Your task to perform on an android device: turn off location Image 0: 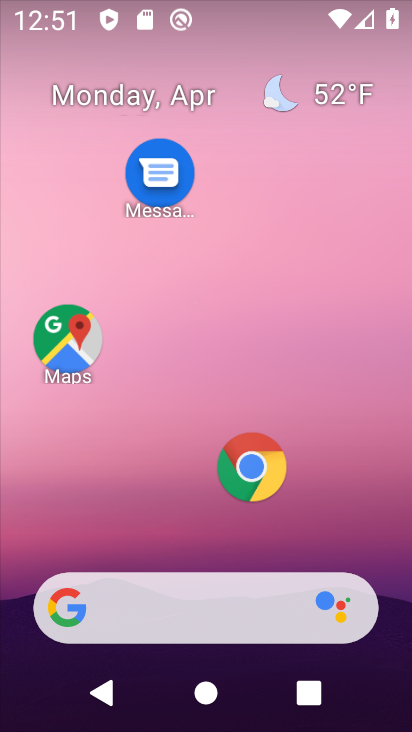
Step 0: drag from (198, 535) to (185, 148)
Your task to perform on an android device: turn off location Image 1: 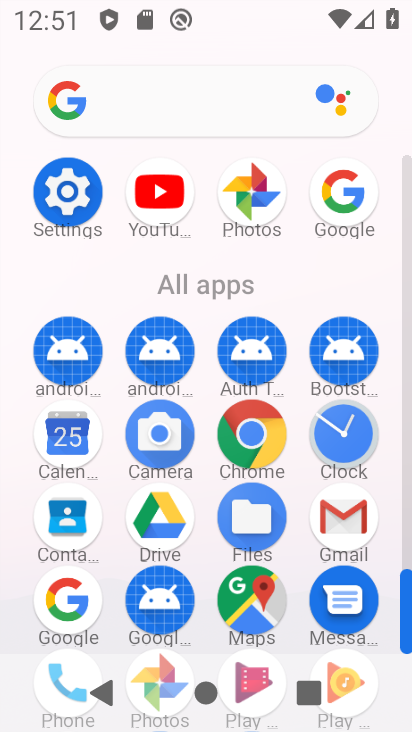
Step 1: click (69, 199)
Your task to perform on an android device: turn off location Image 2: 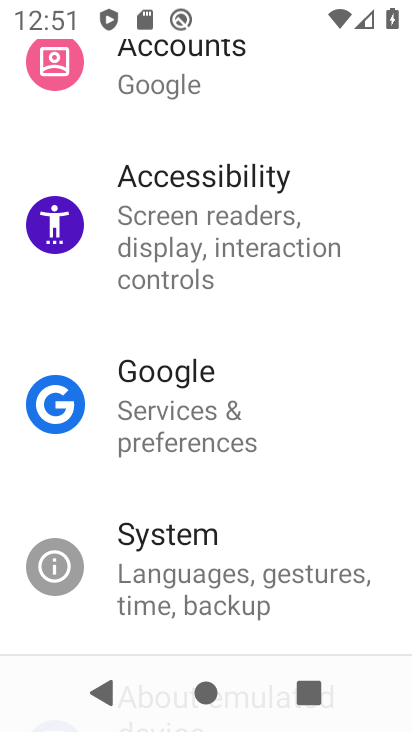
Step 2: click (276, 365)
Your task to perform on an android device: turn off location Image 3: 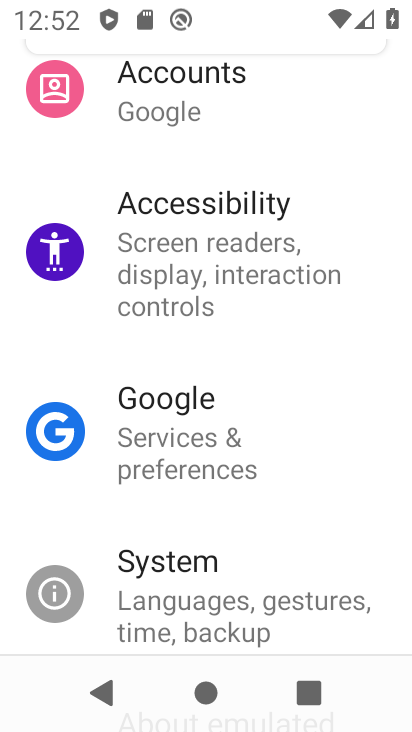
Step 3: drag from (296, 586) to (291, 282)
Your task to perform on an android device: turn off location Image 4: 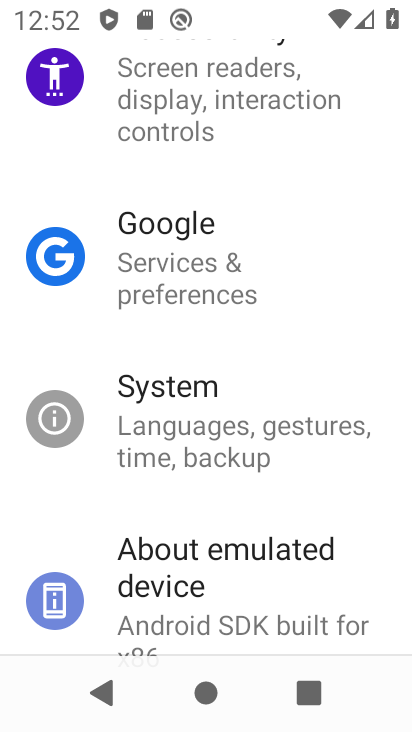
Step 4: drag from (301, 559) to (298, 290)
Your task to perform on an android device: turn off location Image 5: 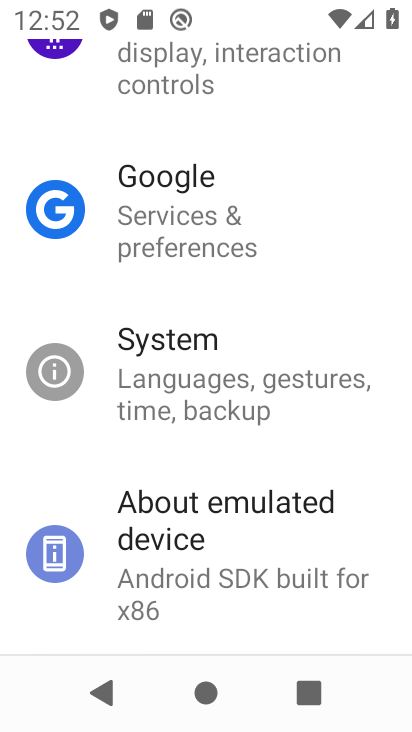
Step 5: drag from (318, 555) to (330, 223)
Your task to perform on an android device: turn off location Image 6: 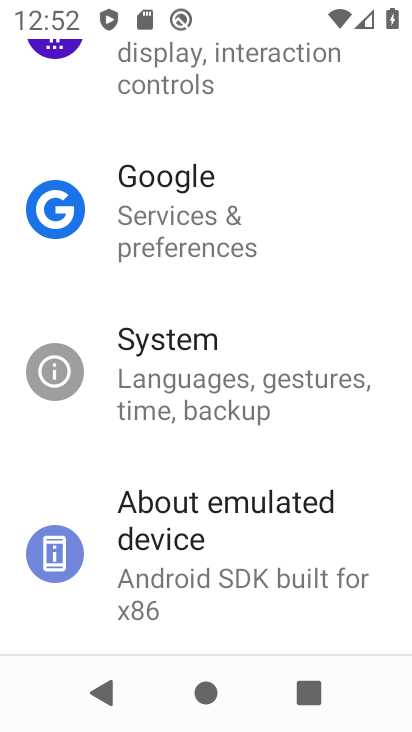
Step 6: drag from (271, 496) to (302, 269)
Your task to perform on an android device: turn off location Image 7: 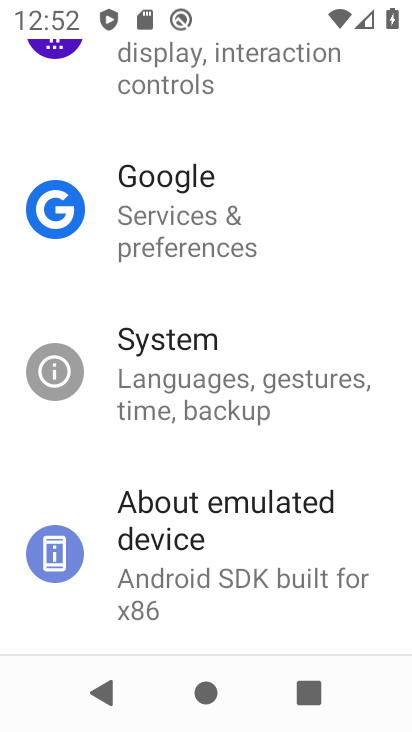
Step 7: drag from (267, 226) to (255, 515)
Your task to perform on an android device: turn off location Image 8: 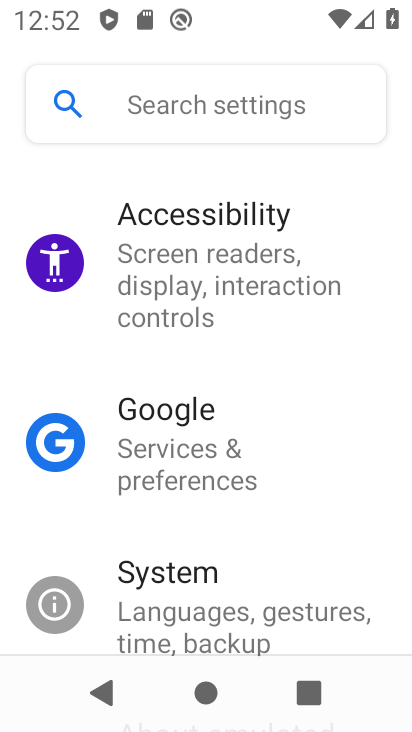
Step 8: drag from (255, 263) to (255, 543)
Your task to perform on an android device: turn off location Image 9: 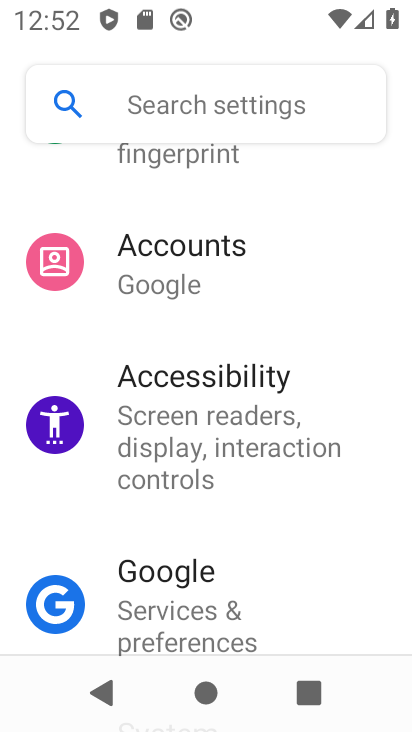
Step 9: drag from (273, 568) to (327, 268)
Your task to perform on an android device: turn off location Image 10: 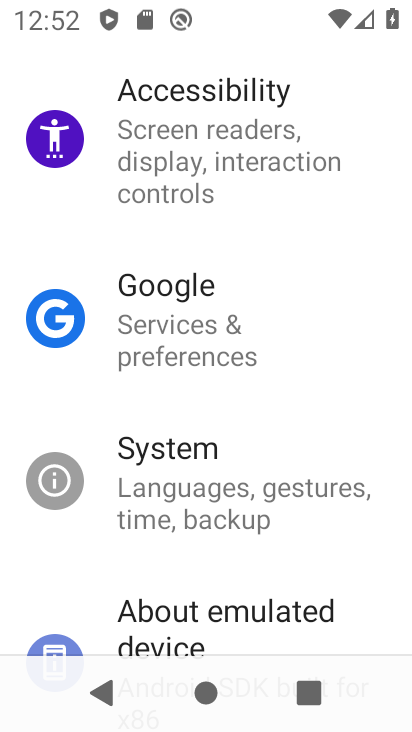
Step 10: drag from (309, 519) to (315, 216)
Your task to perform on an android device: turn off location Image 11: 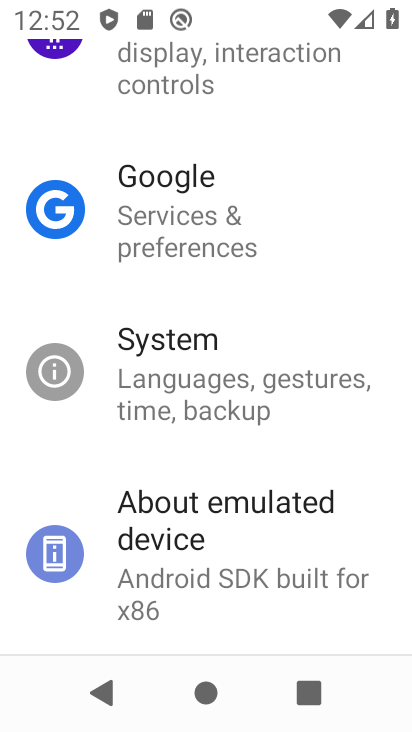
Step 11: drag from (302, 548) to (280, 625)
Your task to perform on an android device: turn off location Image 12: 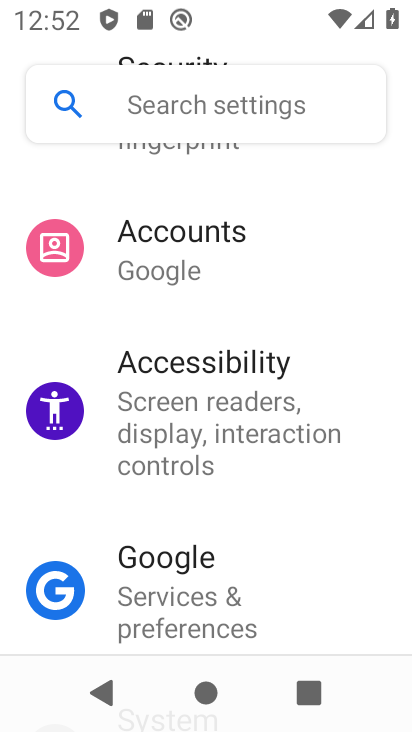
Step 12: drag from (275, 265) to (275, 487)
Your task to perform on an android device: turn off location Image 13: 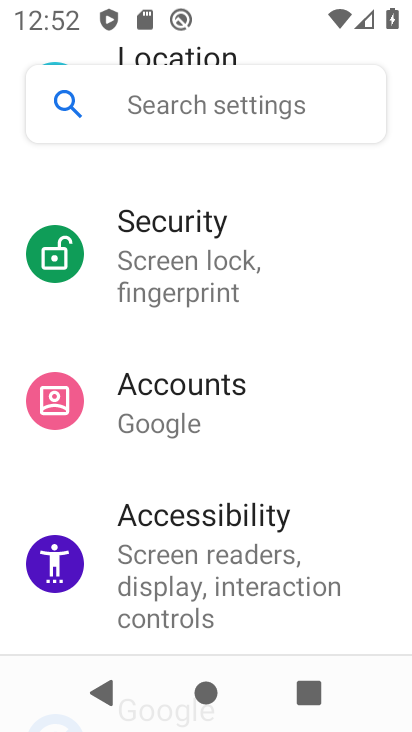
Step 13: drag from (279, 220) to (292, 455)
Your task to perform on an android device: turn off location Image 14: 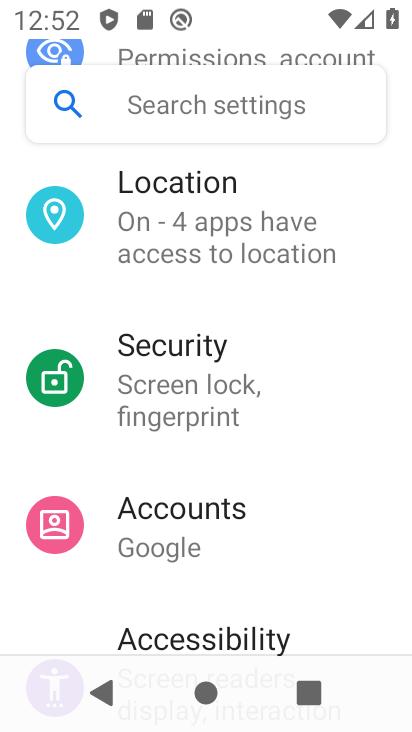
Step 14: click (235, 244)
Your task to perform on an android device: turn off location Image 15: 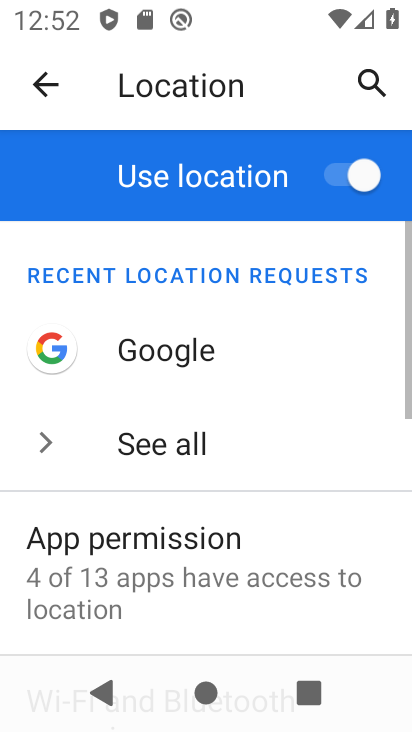
Step 15: click (337, 176)
Your task to perform on an android device: turn off location Image 16: 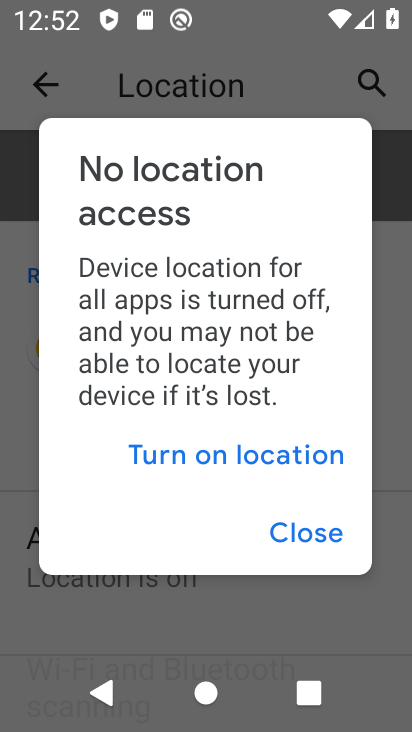
Step 16: click (296, 542)
Your task to perform on an android device: turn off location Image 17: 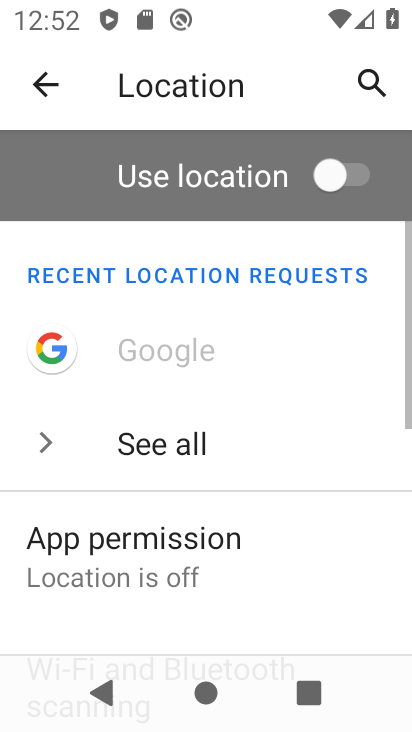
Step 17: task complete